Your task to perform on an android device: Search for vegetarian restaurants on Maps Image 0: 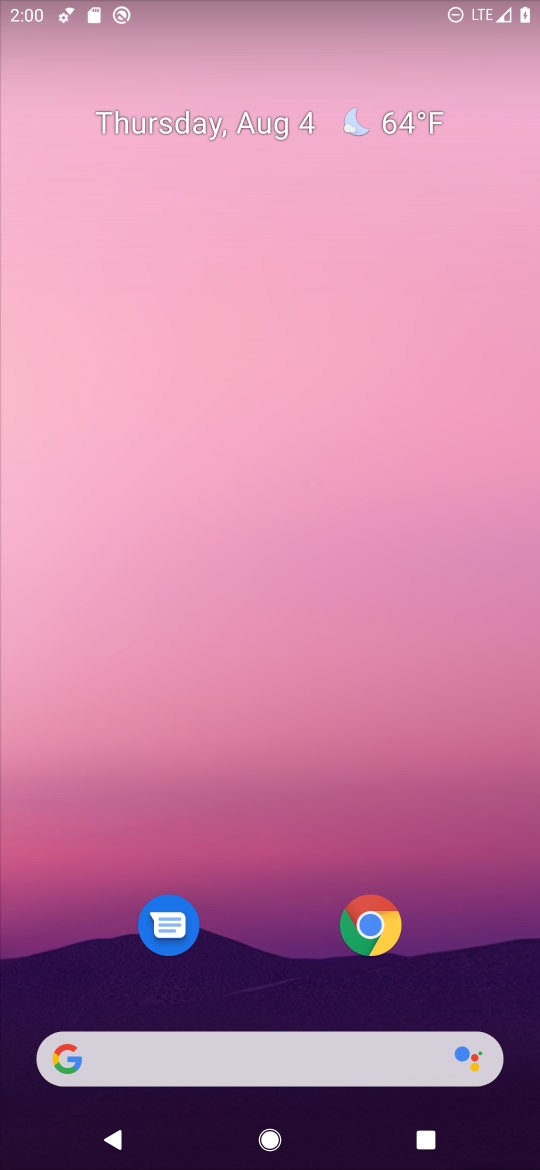
Step 0: drag from (252, 910) to (352, 156)
Your task to perform on an android device: Search for vegetarian restaurants on Maps Image 1: 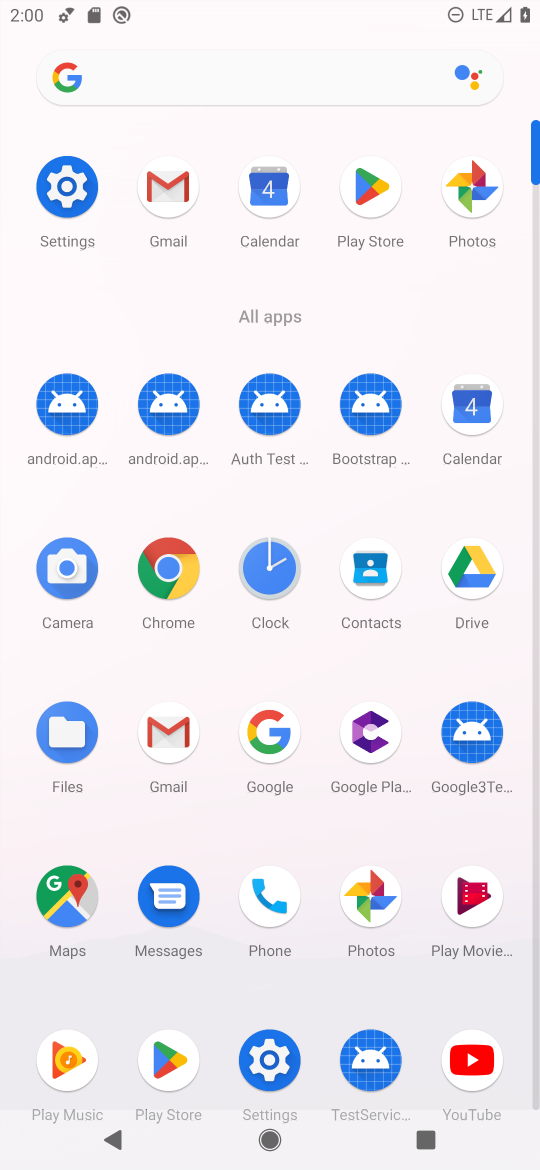
Step 1: click (60, 899)
Your task to perform on an android device: Search for vegetarian restaurants on Maps Image 2: 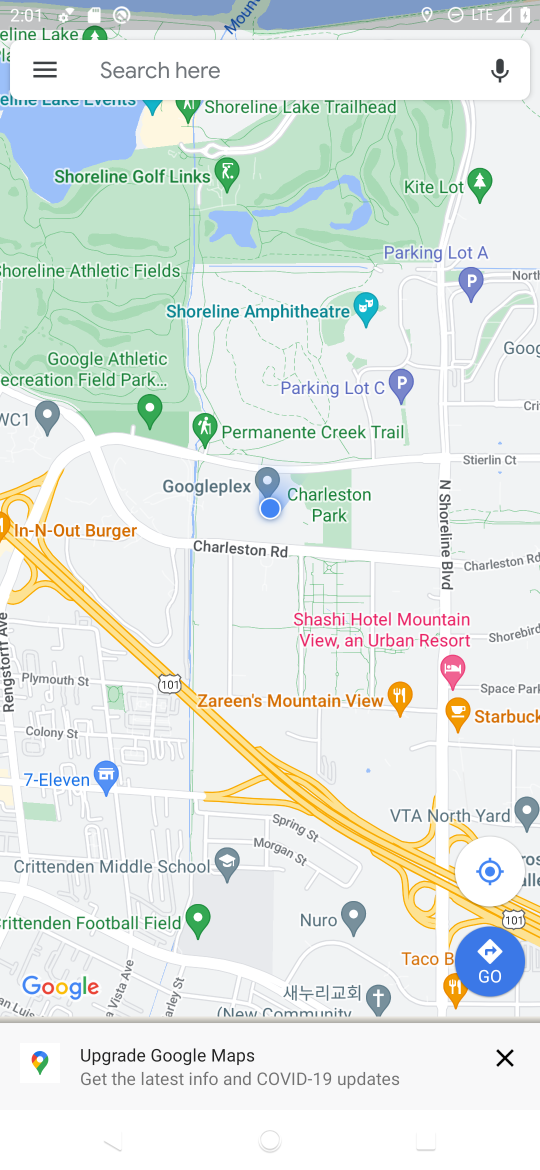
Step 2: click (296, 70)
Your task to perform on an android device: Search for vegetarian restaurants on Maps Image 3: 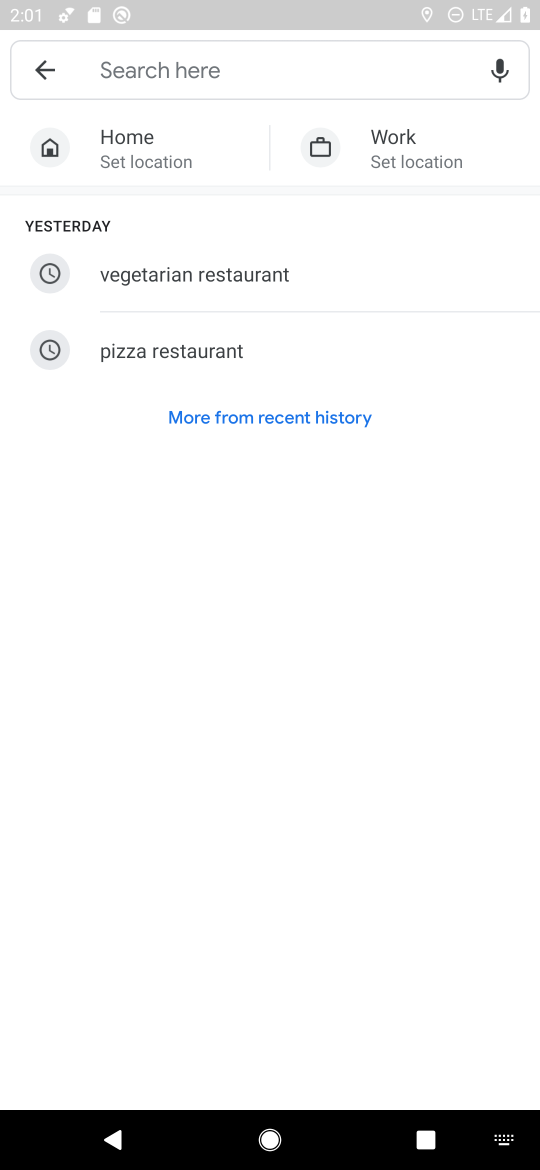
Step 3: click (307, 266)
Your task to perform on an android device: Search for vegetarian restaurants on Maps Image 4: 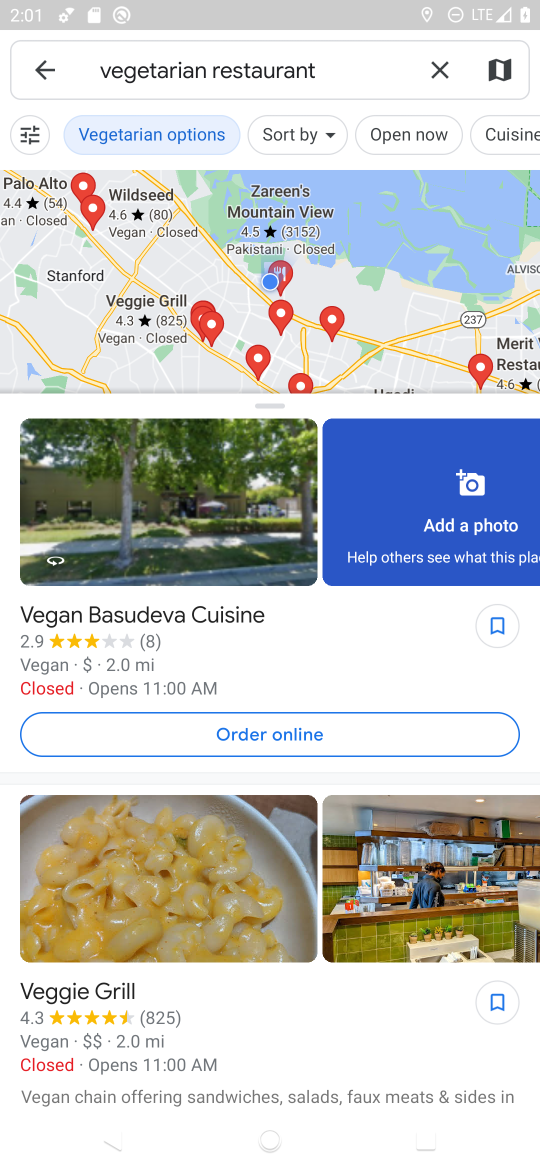
Step 4: task complete